Your task to perform on an android device: Go to Maps Image 0: 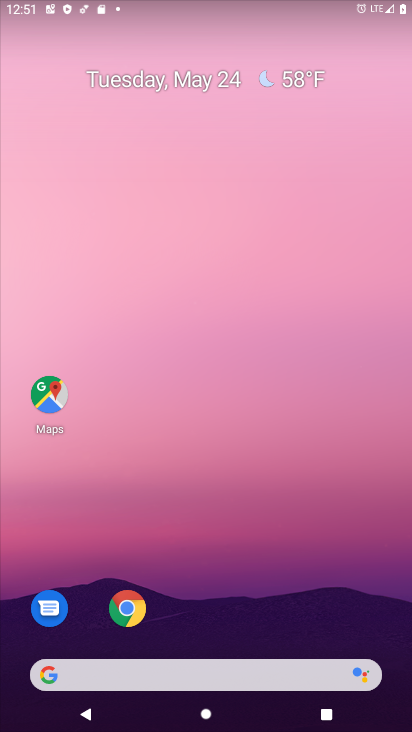
Step 0: press home button
Your task to perform on an android device: Go to Maps Image 1: 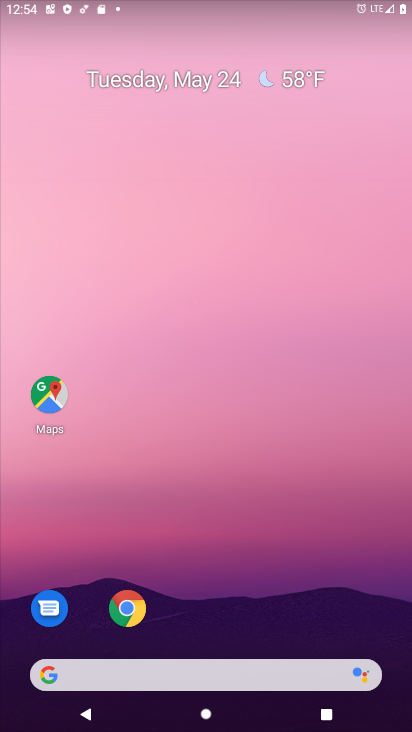
Step 1: drag from (288, 703) to (217, 181)
Your task to perform on an android device: Go to Maps Image 2: 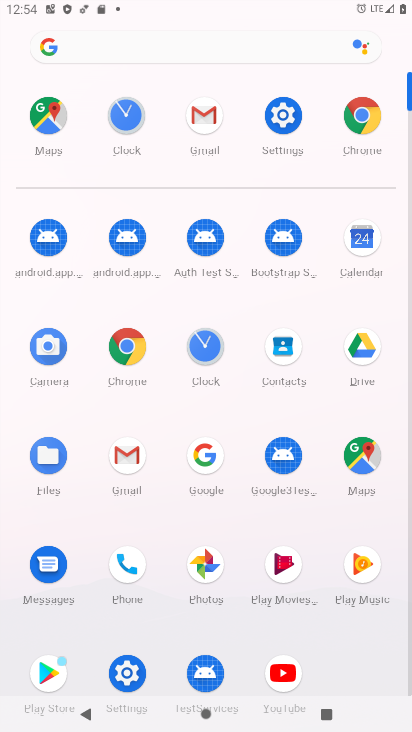
Step 2: click (370, 464)
Your task to perform on an android device: Go to Maps Image 3: 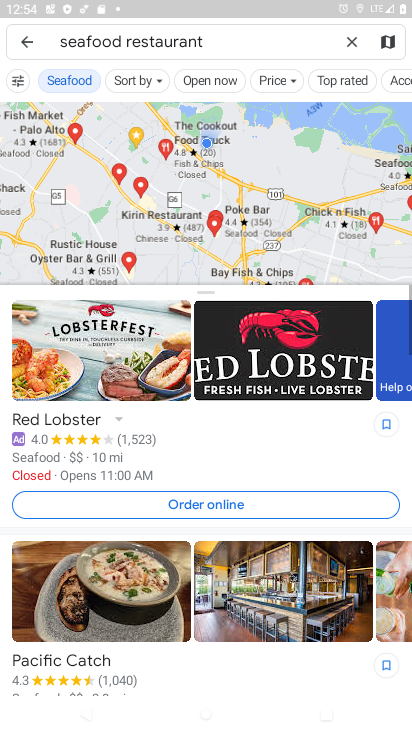
Step 3: task complete